Your task to perform on an android device: turn notification dots on Image 0: 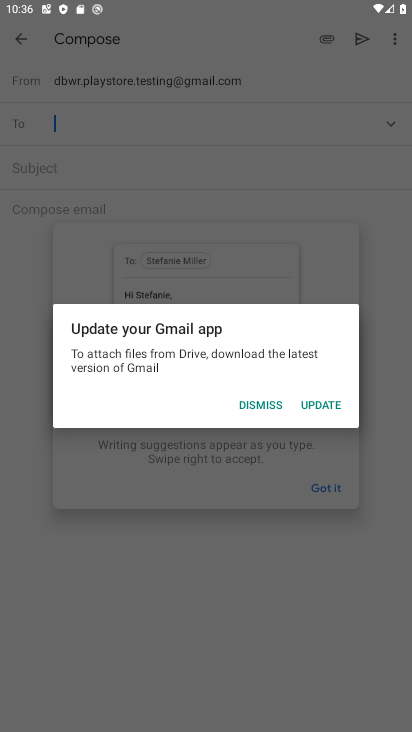
Step 0: press home button
Your task to perform on an android device: turn notification dots on Image 1: 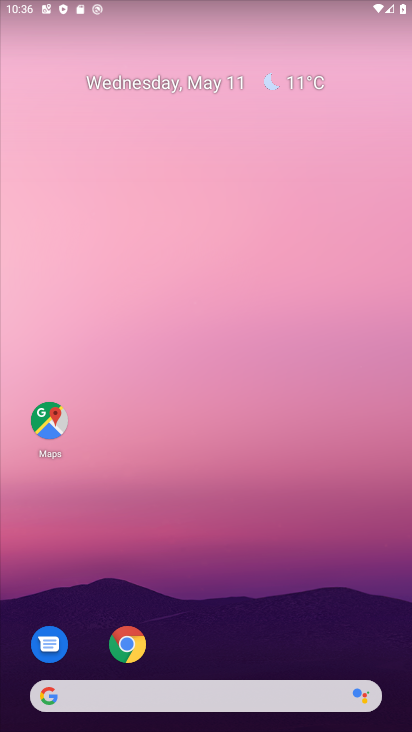
Step 1: drag from (308, 662) to (339, 7)
Your task to perform on an android device: turn notification dots on Image 2: 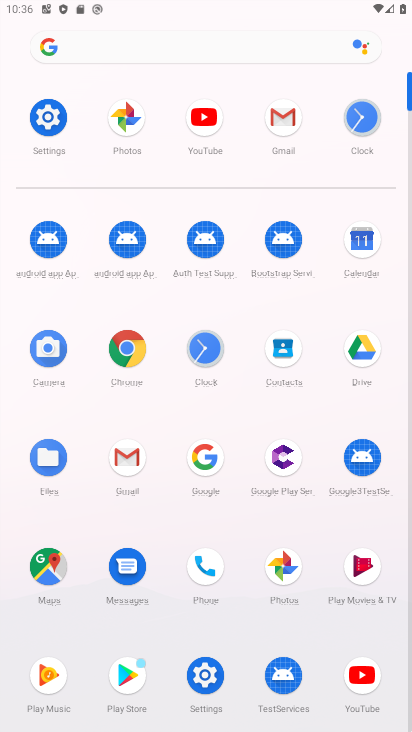
Step 2: click (51, 117)
Your task to perform on an android device: turn notification dots on Image 3: 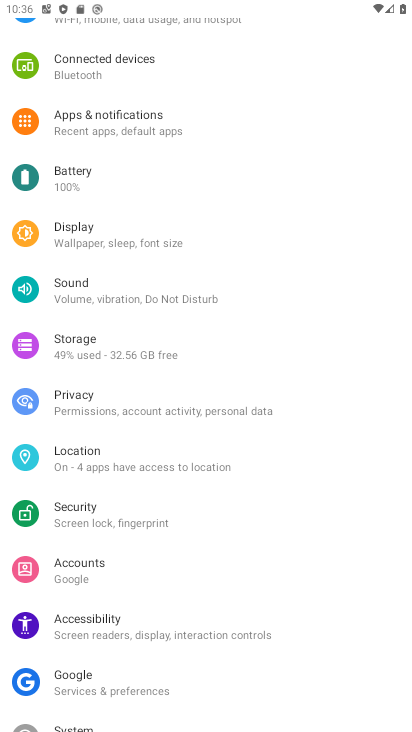
Step 3: click (77, 133)
Your task to perform on an android device: turn notification dots on Image 4: 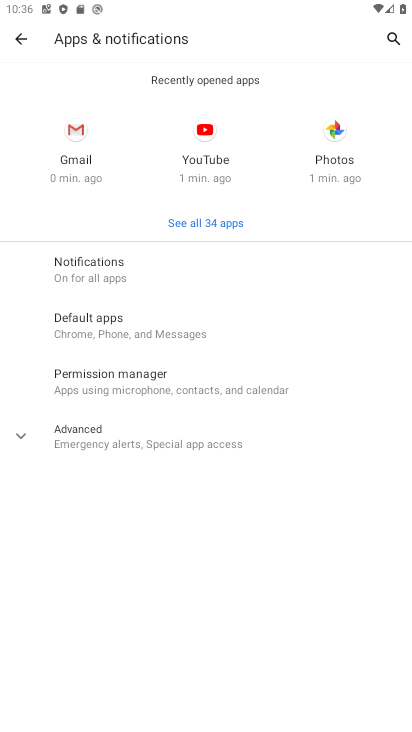
Step 4: click (71, 275)
Your task to perform on an android device: turn notification dots on Image 5: 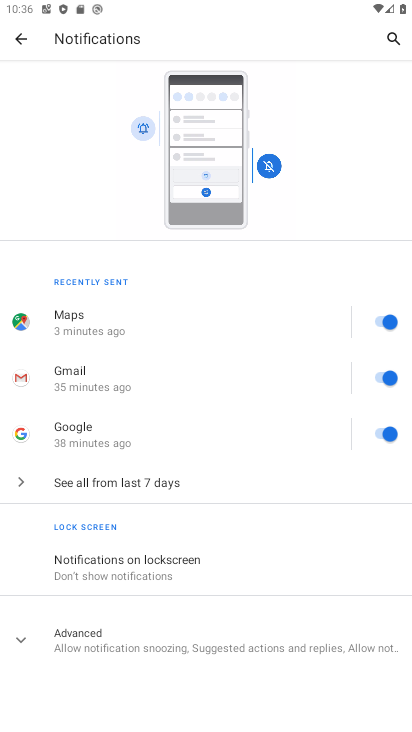
Step 5: drag from (141, 562) to (120, 246)
Your task to perform on an android device: turn notification dots on Image 6: 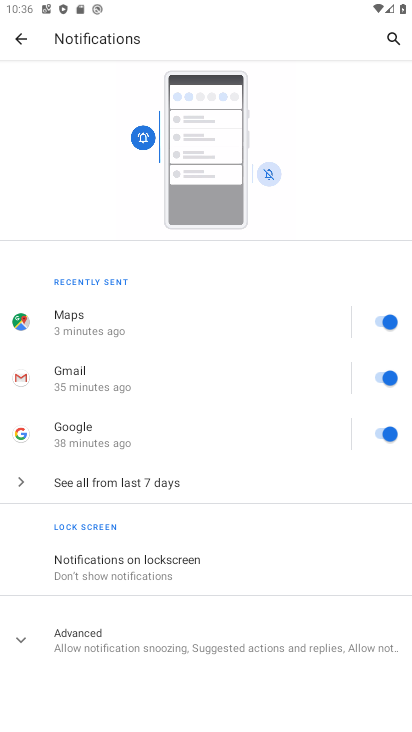
Step 6: click (17, 641)
Your task to perform on an android device: turn notification dots on Image 7: 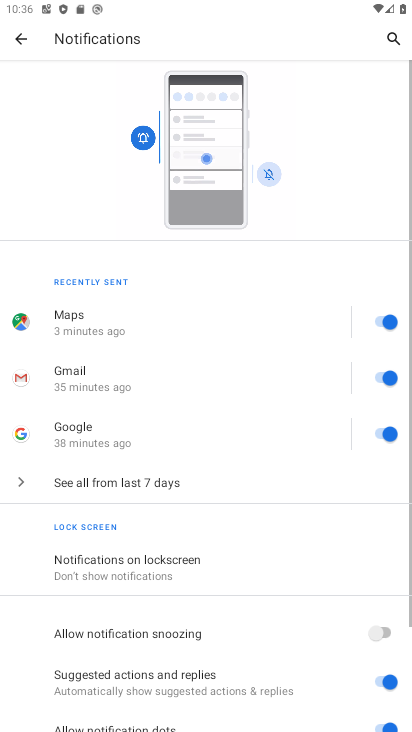
Step 7: task complete